Your task to perform on an android device: Toggle the flashlight Image 0: 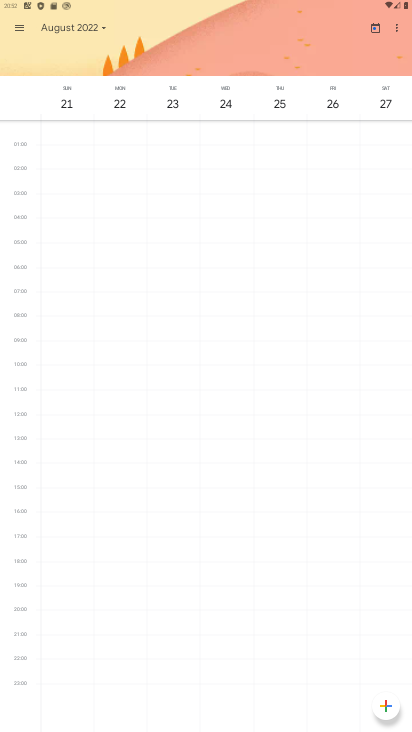
Step 0: press home button
Your task to perform on an android device: Toggle the flashlight Image 1: 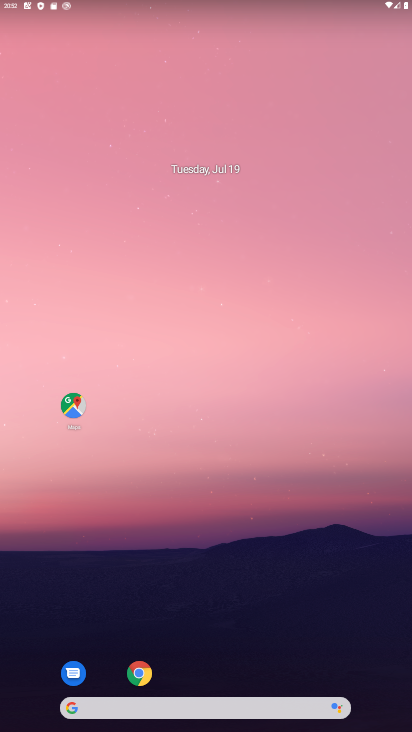
Step 1: drag from (221, 611) to (222, 57)
Your task to perform on an android device: Toggle the flashlight Image 2: 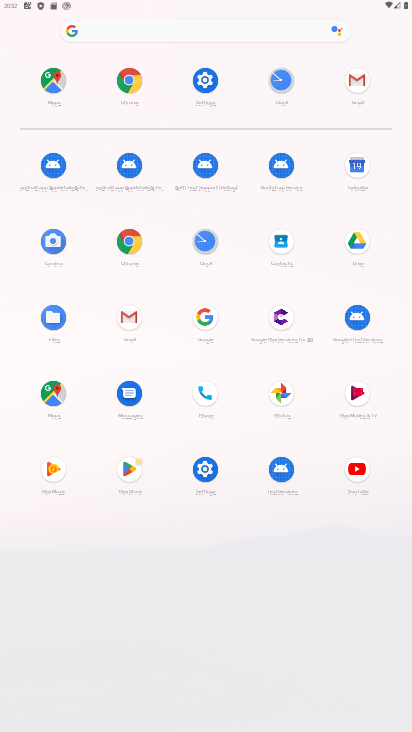
Step 2: click (211, 477)
Your task to perform on an android device: Toggle the flashlight Image 3: 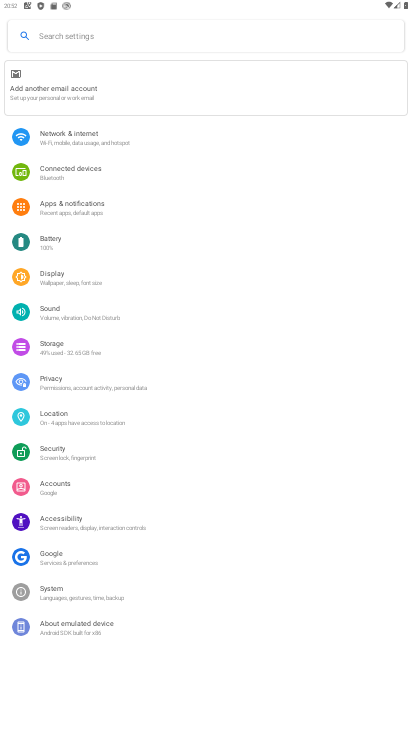
Step 3: click (148, 38)
Your task to perform on an android device: Toggle the flashlight Image 4: 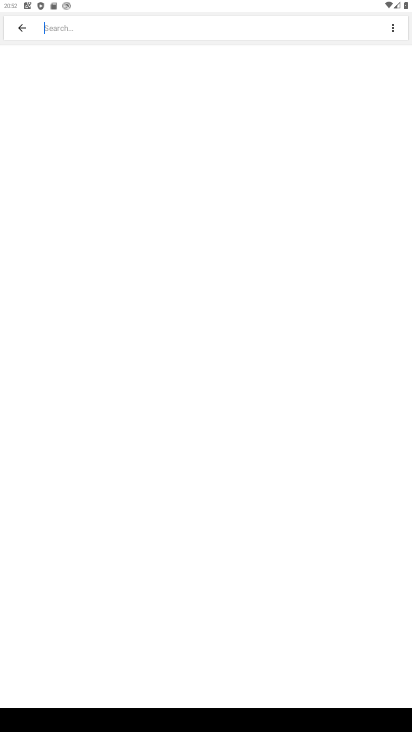
Step 4: type "flashlight"
Your task to perform on an android device: Toggle the flashlight Image 5: 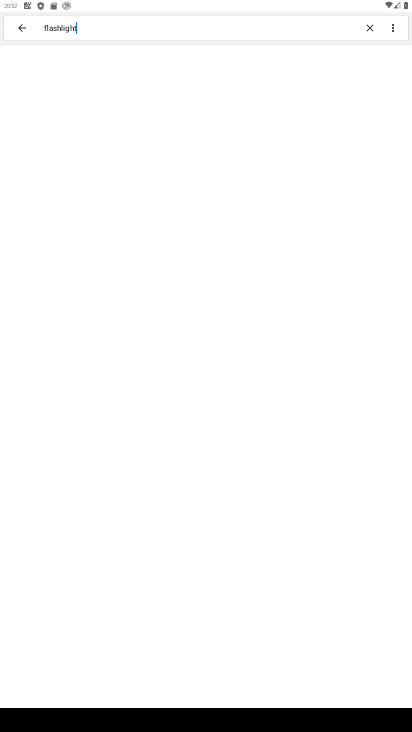
Step 5: click (66, 68)
Your task to perform on an android device: Toggle the flashlight Image 6: 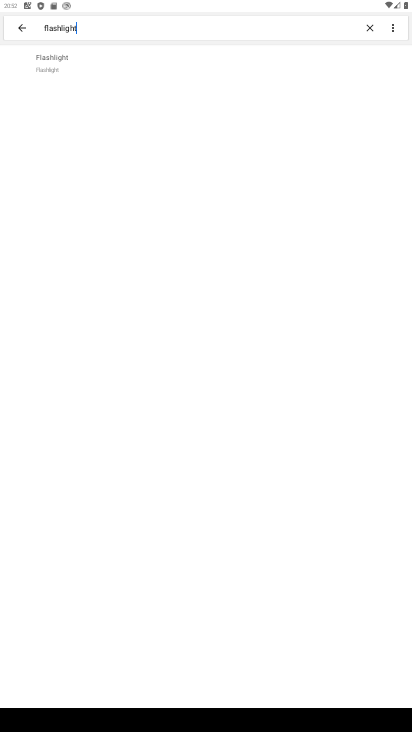
Step 6: click (52, 60)
Your task to perform on an android device: Toggle the flashlight Image 7: 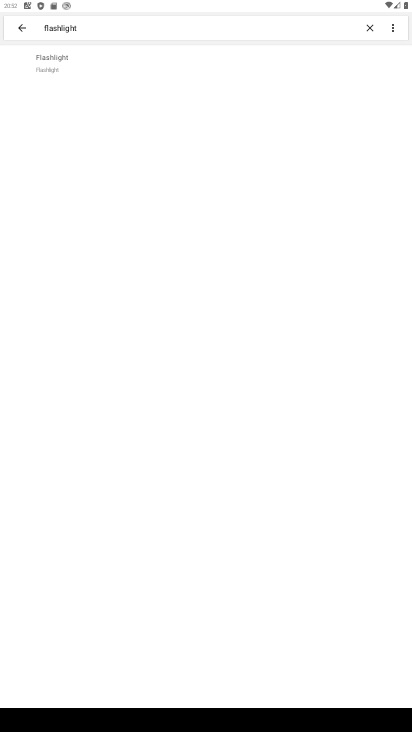
Step 7: click (54, 58)
Your task to perform on an android device: Toggle the flashlight Image 8: 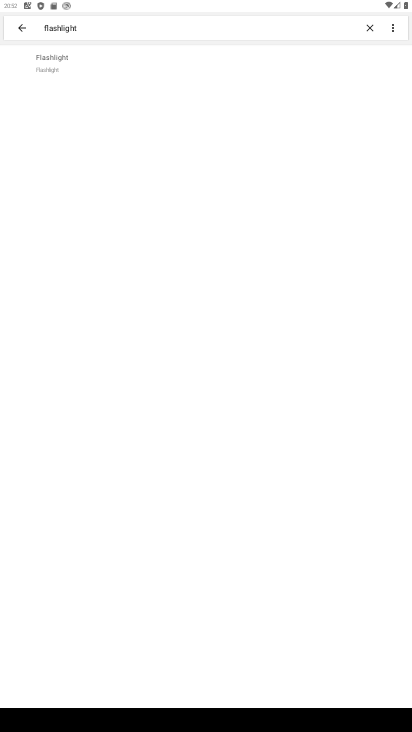
Step 8: click (55, 59)
Your task to perform on an android device: Toggle the flashlight Image 9: 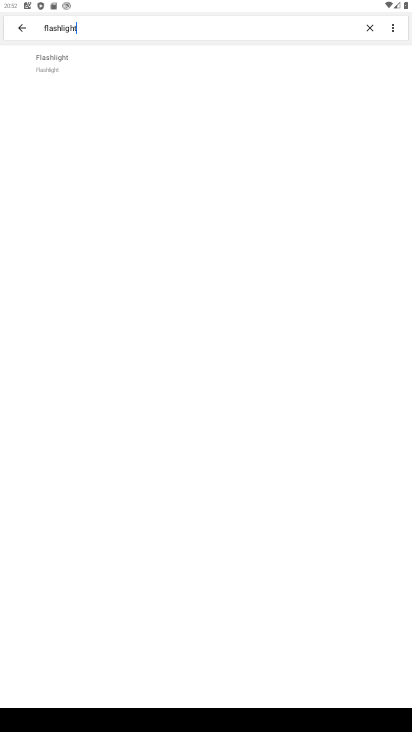
Step 9: task complete